Your task to perform on an android device: Open the calendar and show me this week's events? Image 0: 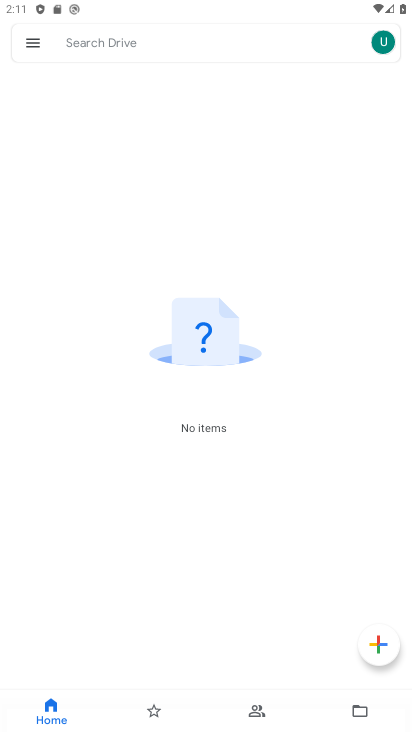
Step 0: press home button
Your task to perform on an android device: Open the calendar and show me this week's events? Image 1: 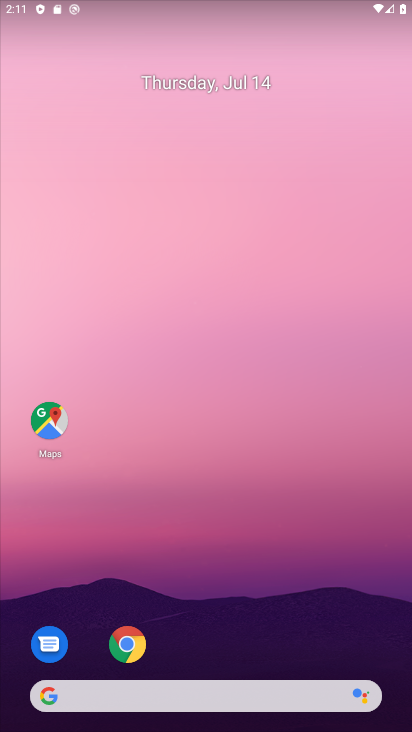
Step 1: drag from (273, 532) to (154, 2)
Your task to perform on an android device: Open the calendar and show me this week's events? Image 2: 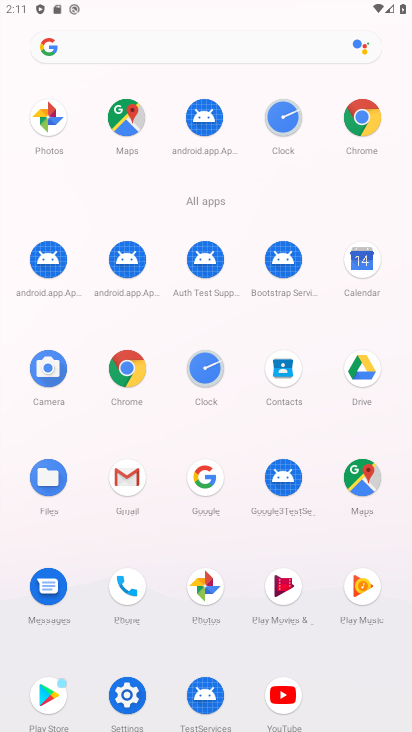
Step 2: click (363, 254)
Your task to perform on an android device: Open the calendar and show me this week's events? Image 3: 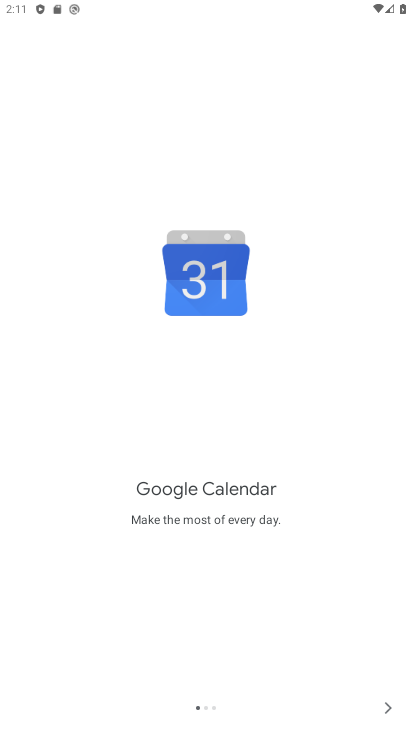
Step 3: click (386, 706)
Your task to perform on an android device: Open the calendar and show me this week's events? Image 4: 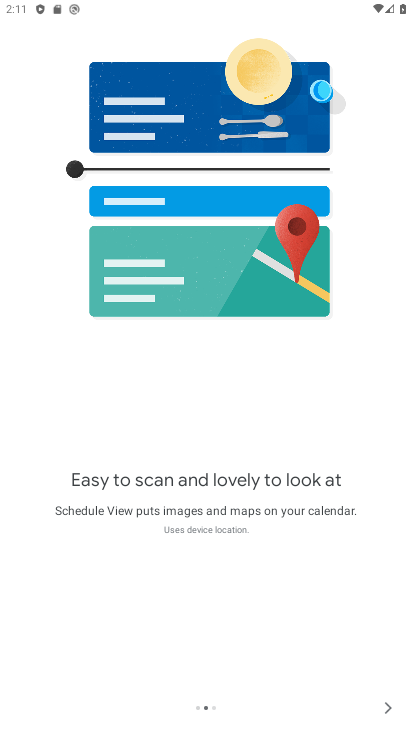
Step 4: click (386, 706)
Your task to perform on an android device: Open the calendar and show me this week's events? Image 5: 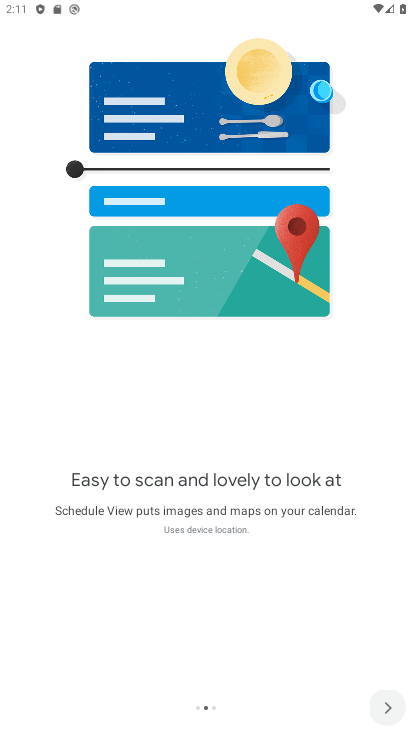
Step 5: click (386, 706)
Your task to perform on an android device: Open the calendar and show me this week's events? Image 6: 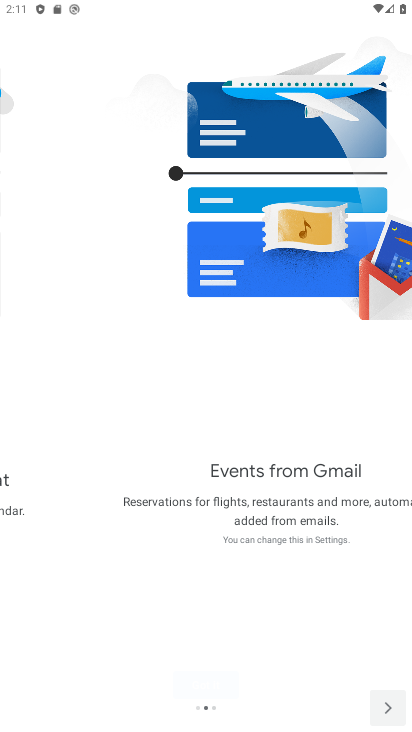
Step 6: click (386, 706)
Your task to perform on an android device: Open the calendar and show me this week's events? Image 7: 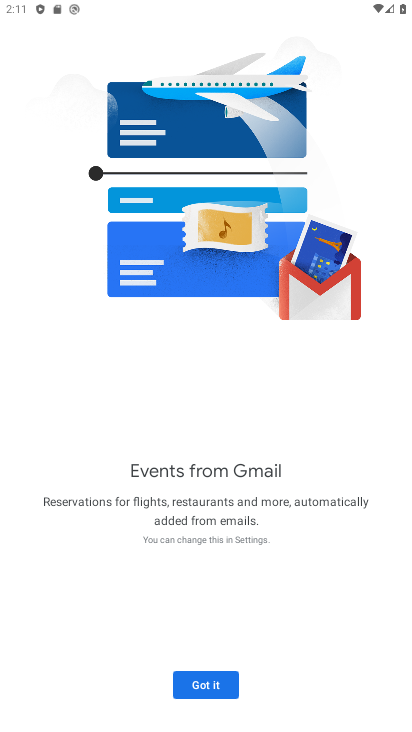
Step 7: click (386, 706)
Your task to perform on an android device: Open the calendar and show me this week's events? Image 8: 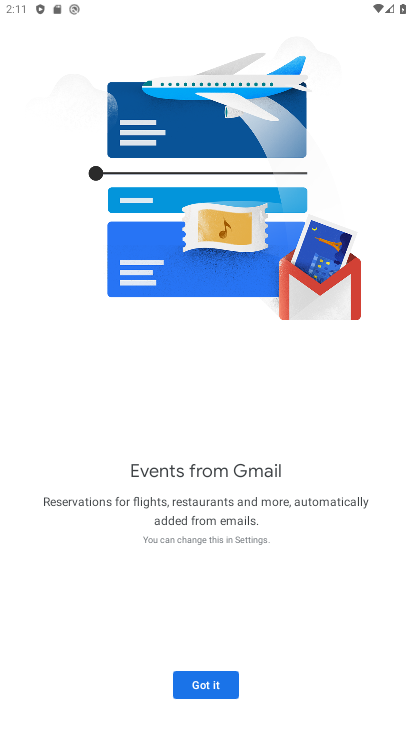
Step 8: click (220, 688)
Your task to perform on an android device: Open the calendar and show me this week's events? Image 9: 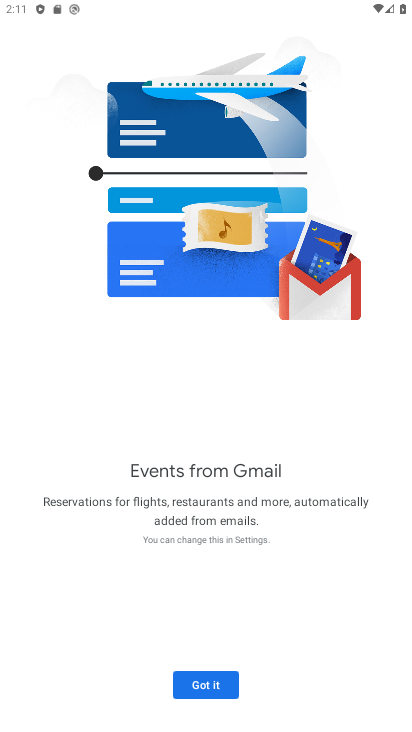
Step 9: click (220, 688)
Your task to perform on an android device: Open the calendar and show me this week's events? Image 10: 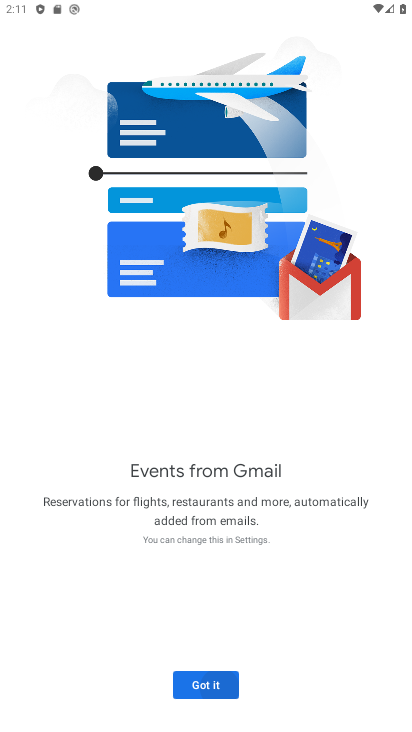
Step 10: click (220, 688)
Your task to perform on an android device: Open the calendar and show me this week's events? Image 11: 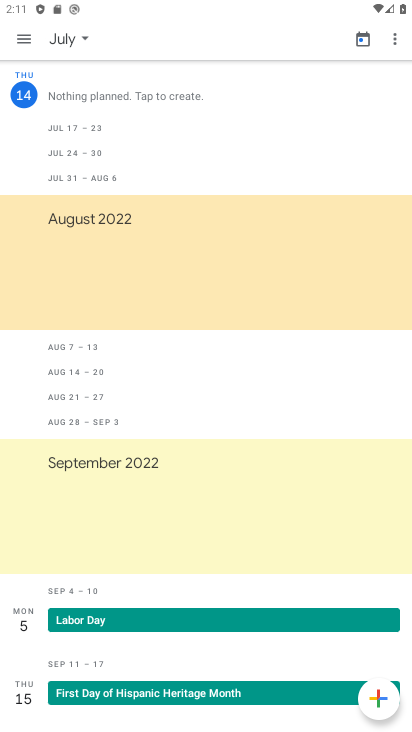
Step 11: click (216, 689)
Your task to perform on an android device: Open the calendar and show me this week's events? Image 12: 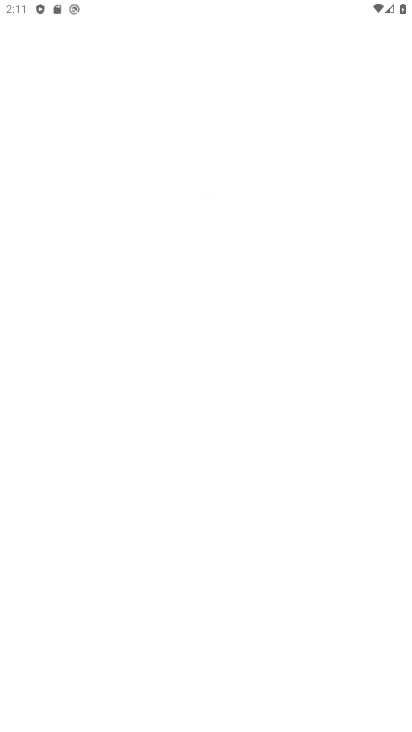
Step 12: click (216, 689)
Your task to perform on an android device: Open the calendar and show me this week's events? Image 13: 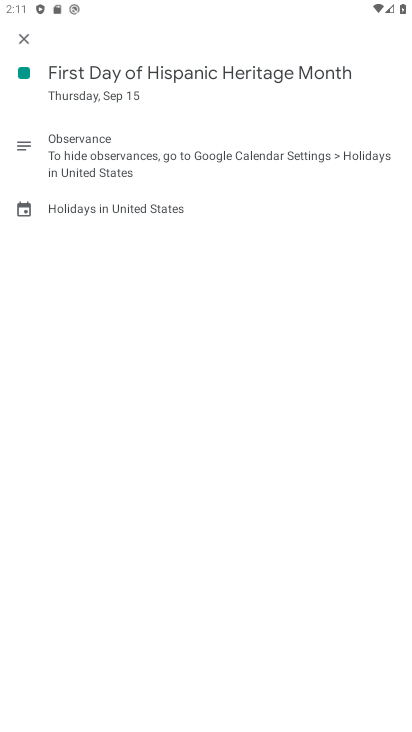
Step 13: click (216, 689)
Your task to perform on an android device: Open the calendar and show me this week's events? Image 14: 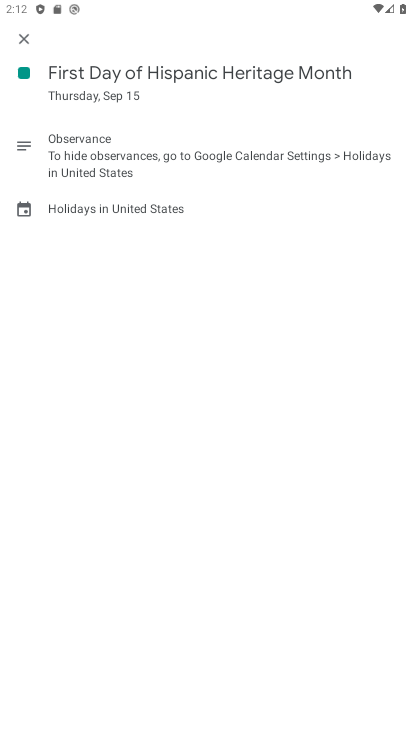
Step 14: click (23, 44)
Your task to perform on an android device: Open the calendar and show me this week's events? Image 15: 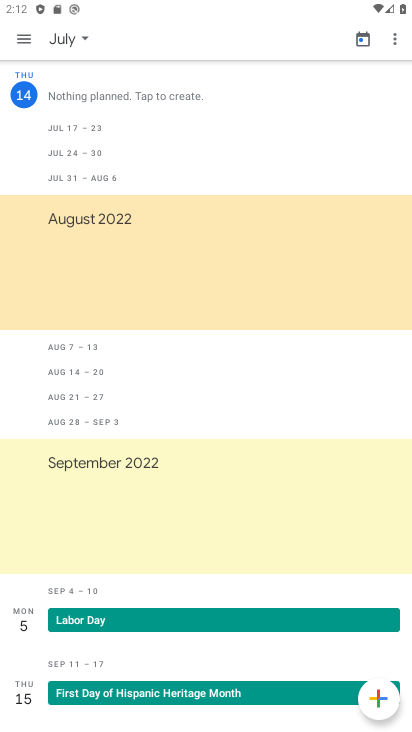
Step 15: click (15, 39)
Your task to perform on an android device: Open the calendar and show me this week's events? Image 16: 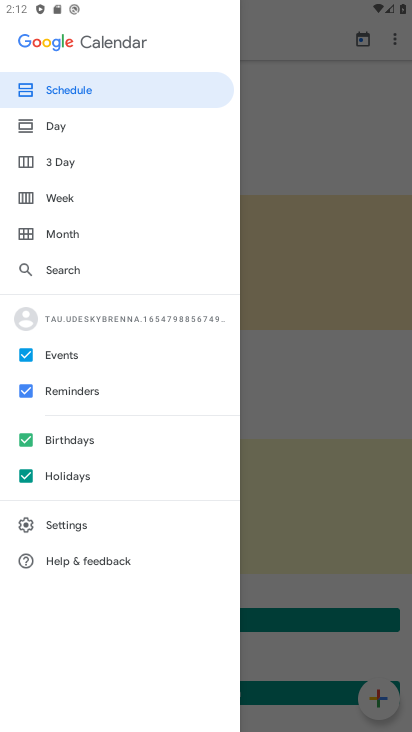
Step 16: click (110, 187)
Your task to perform on an android device: Open the calendar and show me this week's events? Image 17: 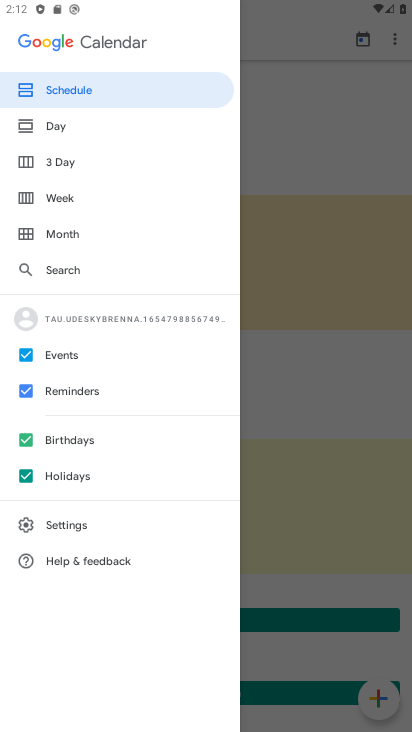
Step 17: click (110, 187)
Your task to perform on an android device: Open the calendar and show me this week's events? Image 18: 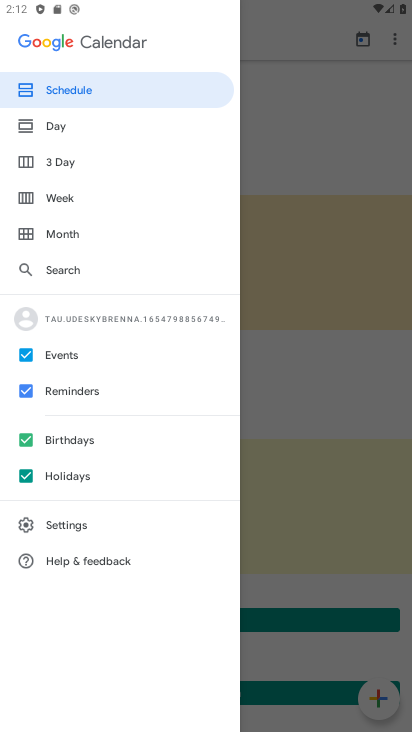
Step 18: click (110, 187)
Your task to perform on an android device: Open the calendar and show me this week's events? Image 19: 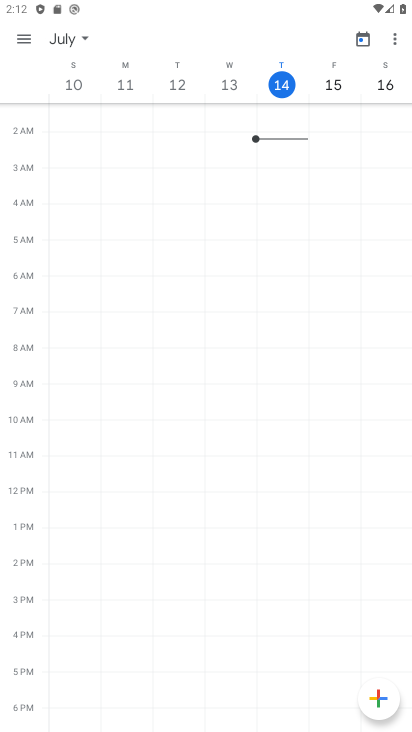
Step 19: task complete